Your task to perform on an android device: Open the calendar app, open the side menu, and click the "Day" option Image 0: 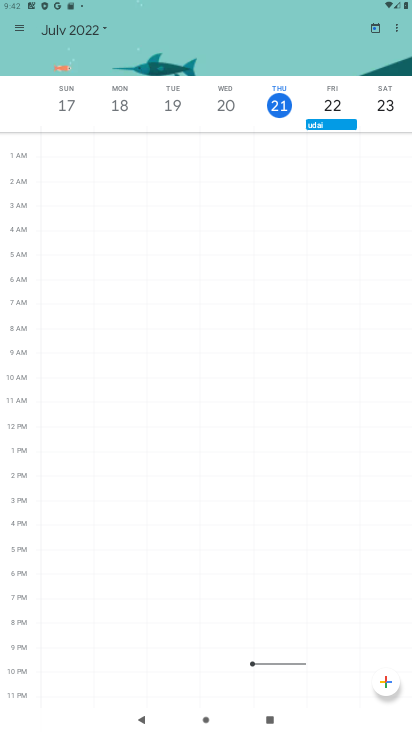
Step 0: press home button
Your task to perform on an android device: Open the calendar app, open the side menu, and click the "Day" option Image 1: 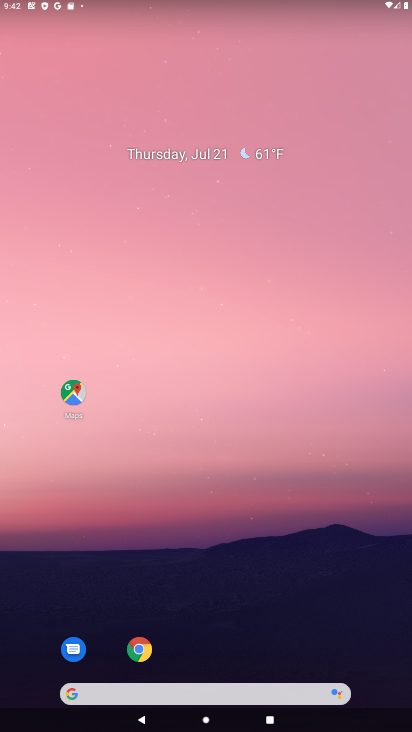
Step 1: drag from (178, 686) to (329, 100)
Your task to perform on an android device: Open the calendar app, open the side menu, and click the "Day" option Image 2: 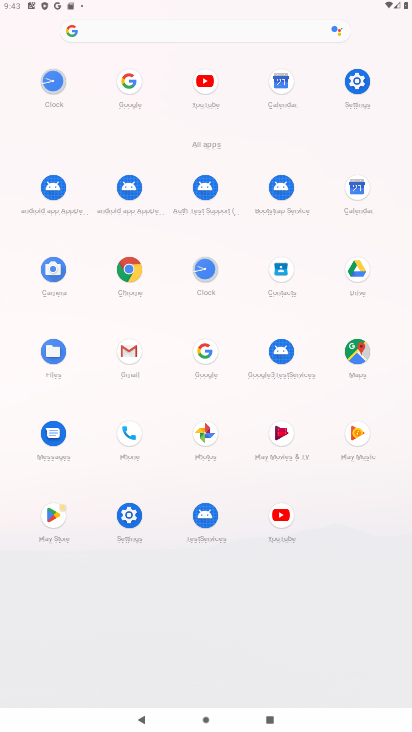
Step 2: click (356, 187)
Your task to perform on an android device: Open the calendar app, open the side menu, and click the "Day" option Image 3: 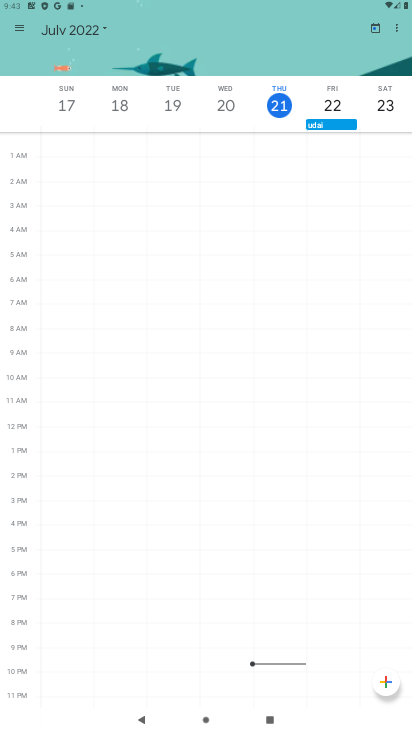
Step 3: click (17, 28)
Your task to perform on an android device: Open the calendar app, open the side menu, and click the "Day" option Image 4: 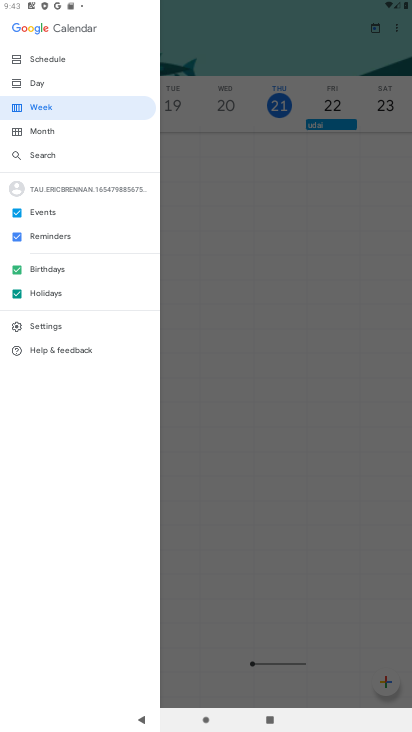
Step 4: click (34, 88)
Your task to perform on an android device: Open the calendar app, open the side menu, and click the "Day" option Image 5: 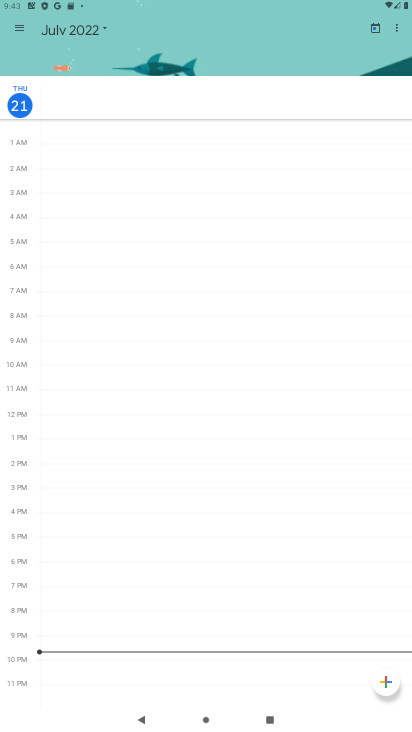
Step 5: task complete